Your task to perform on an android device: turn off javascript in the chrome app Image 0: 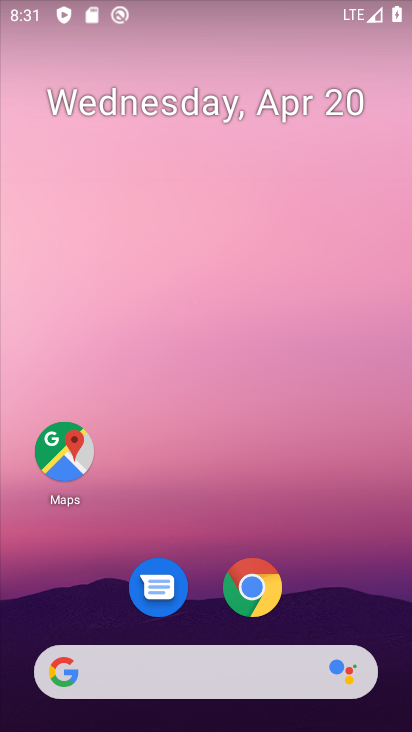
Step 0: drag from (345, 591) to (340, 216)
Your task to perform on an android device: turn off javascript in the chrome app Image 1: 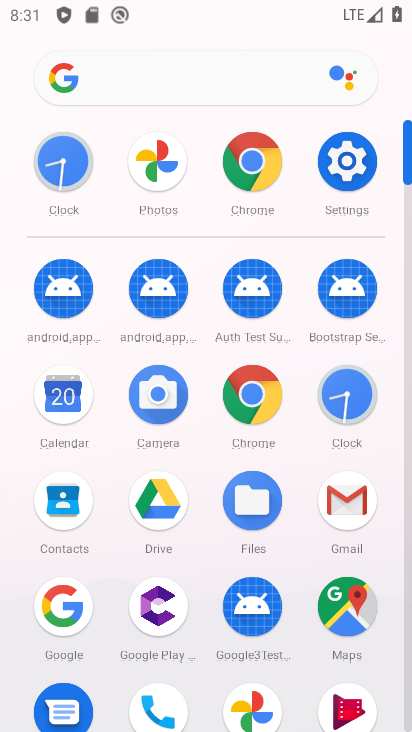
Step 1: click (259, 395)
Your task to perform on an android device: turn off javascript in the chrome app Image 2: 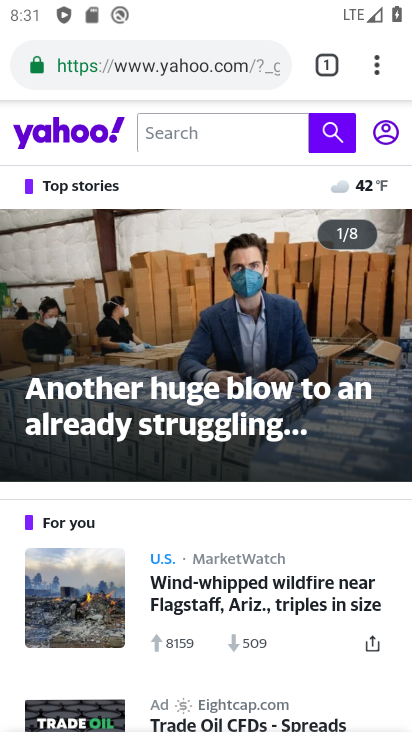
Step 2: click (375, 65)
Your task to perform on an android device: turn off javascript in the chrome app Image 3: 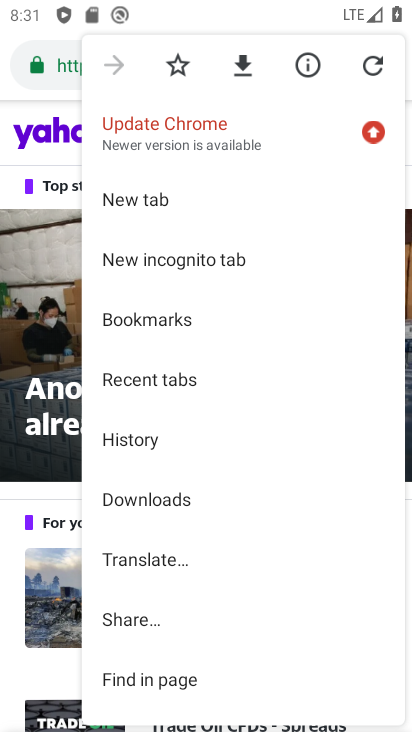
Step 3: drag from (329, 521) to (332, 377)
Your task to perform on an android device: turn off javascript in the chrome app Image 4: 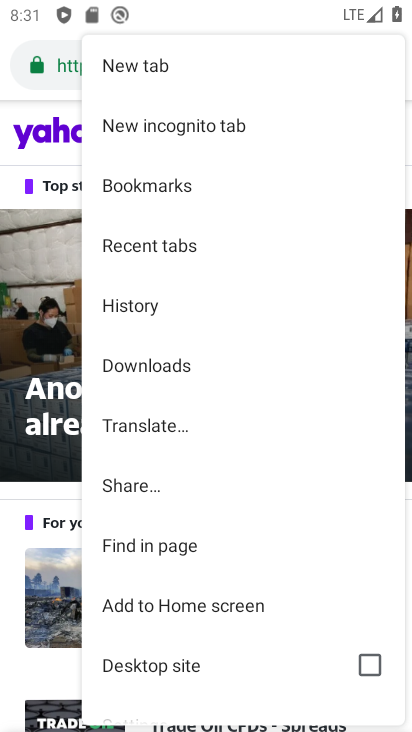
Step 4: drag from (315, 563) to (312, 395)
Your task to perform on an android device: turn off javascript in the chrome app Image 5: 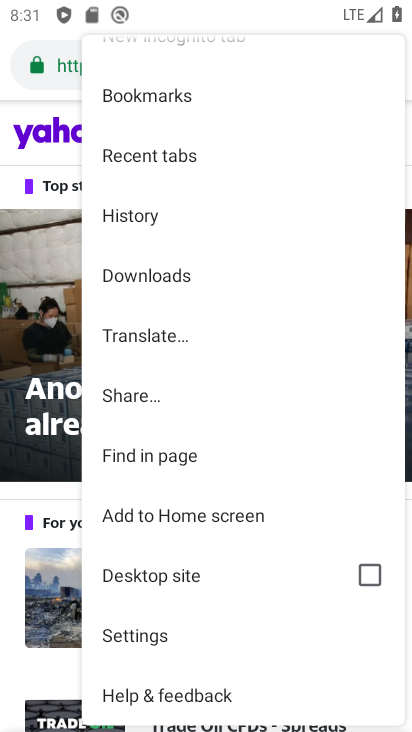
Step 5: click (164, 637)
Your task to perform on an android device: turn off javascript in the chrome app Image 6: 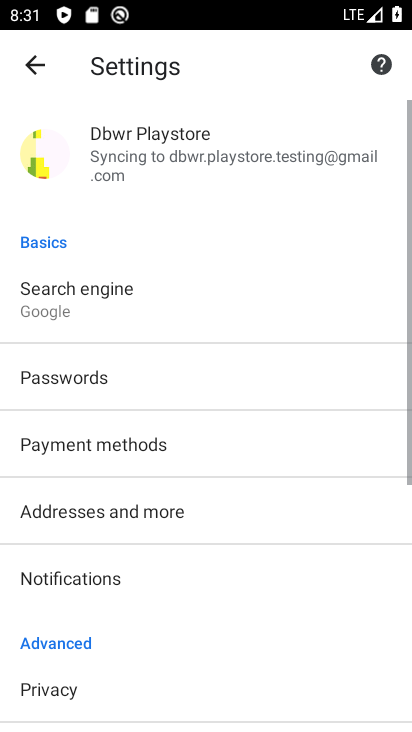
Step 6: drag from (297, 605) to (313, 483)
Your task to perform on an android device: turn off javascript in the chrome app Image 7: 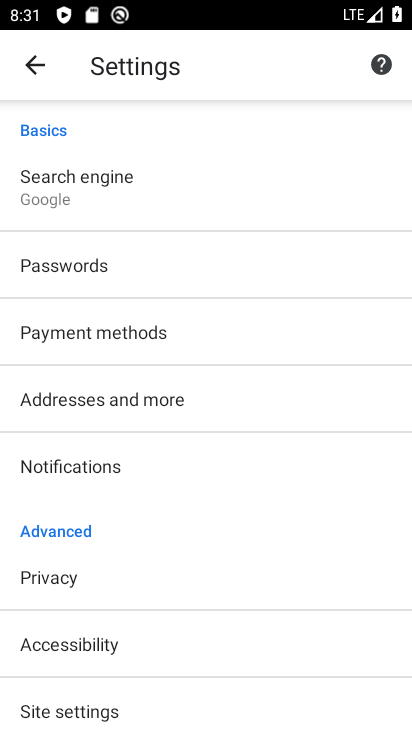
Step 7: drag from (320, 590) to (317, 459)
Your task to perform on an android device: turn off javascript in the chrome app Image 8: 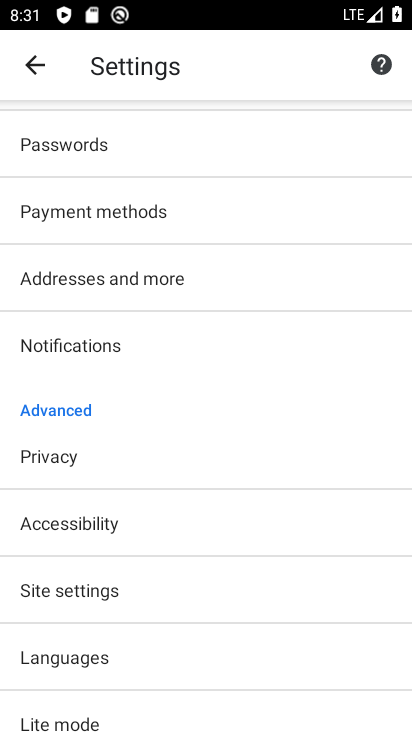
Step 8: drag from (324, 595) to (333, 476)
Your task to perform on an android device: turn off javascript in the chrome app Image 9: 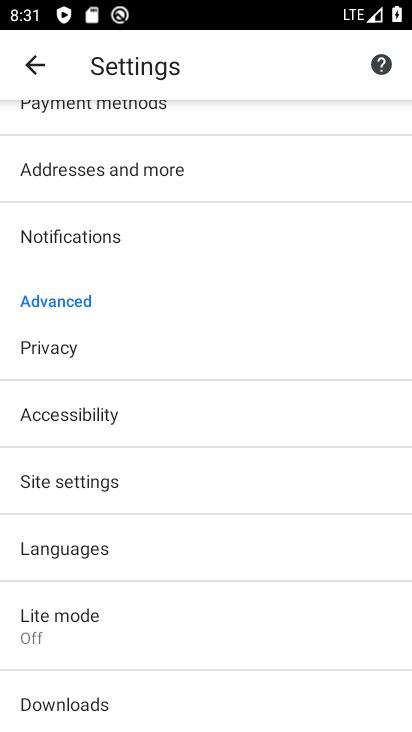
Step 9: drag from (310, 626) to (314, 490)
Your task to perform on an android device: turn off javascript in the chrome app Image 10: 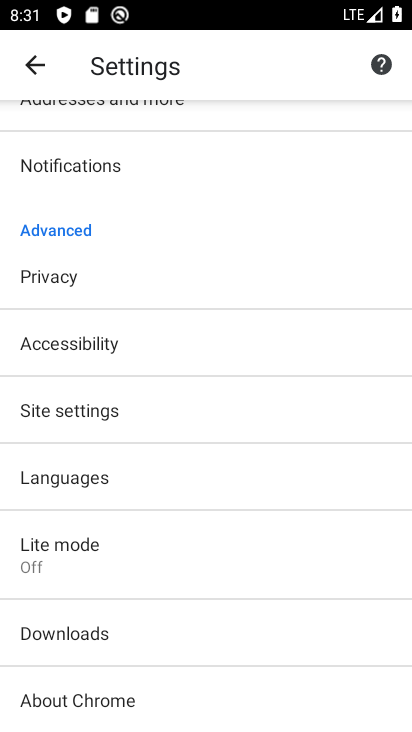
Step 10: click (276, 416)
Your task to perform on an android device: turn off javascript in the chrome app Image 11: 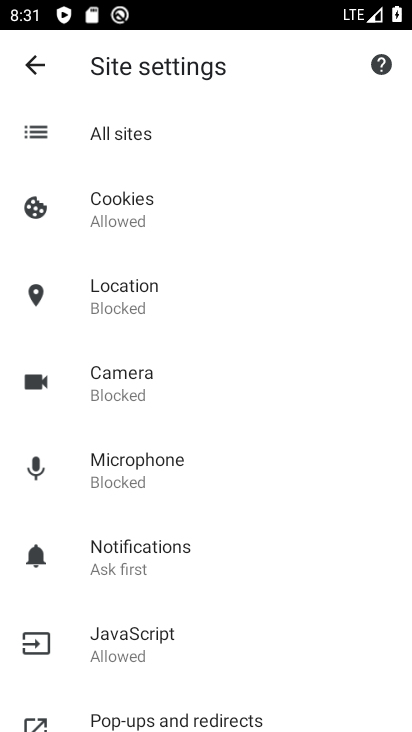
Step 11: drag from (336, 603) to (343, 493)
Your task to perform on an android device: turn off javascript in the chrome app Image 12: 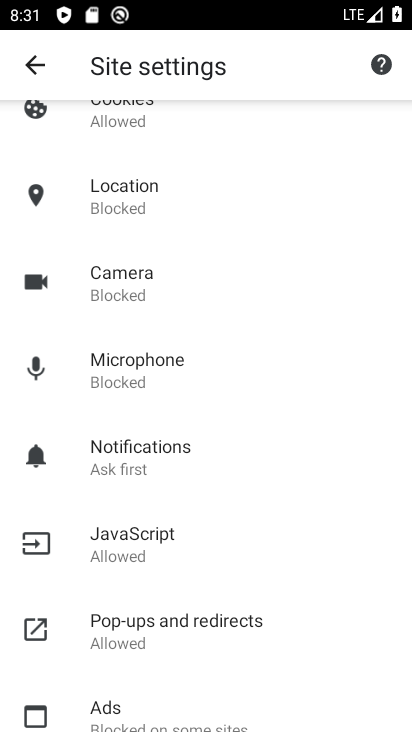
Step 12: drag from (339, 605) to (352, 477)
Your task to perform on an android device: turn off javascript in the chrome app Image 13: 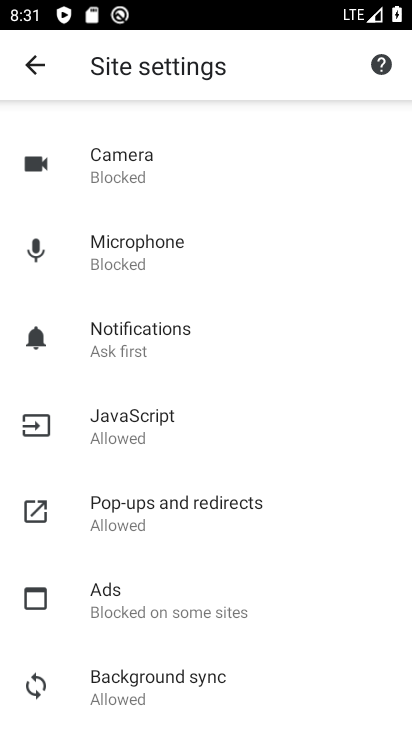
Step 13: drag from (357, 610) to (353, 488)
Your task to perform on an android device: turn off javascript in the chrome app Image 14: 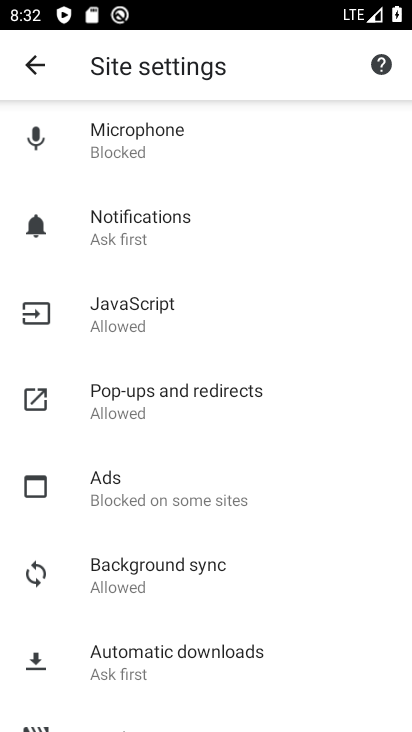
Step 14: click (146, 315)
Your task to perform on an android device: turn off javascript in the chrome app Image 15: 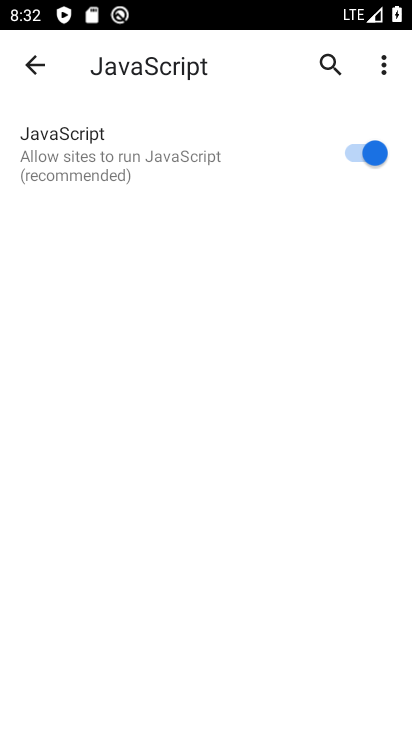
Step 15: click (369, 158)
Your task to perform on an android device: turn off javascript in the chrome app Image 16: 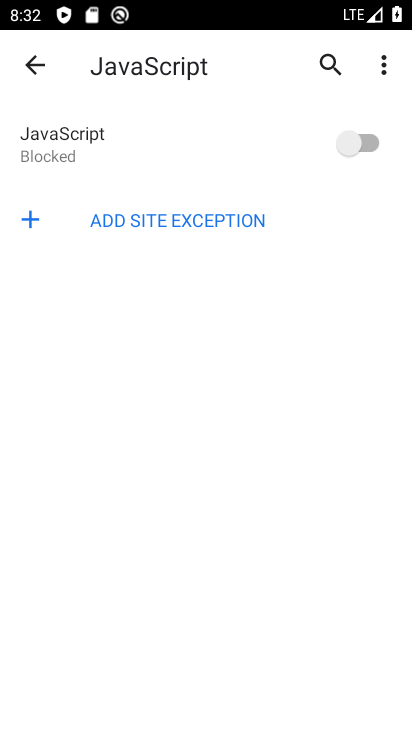
Step 16: task complete